Your task to perform on an android device: turn on bluetooth scan Image 0: 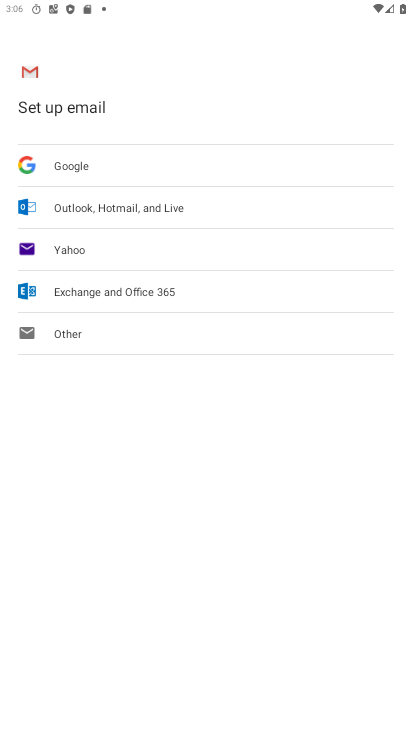
Step 0: press back button
Your task to perform on an android device: turn on bluetooth scan Image 1: 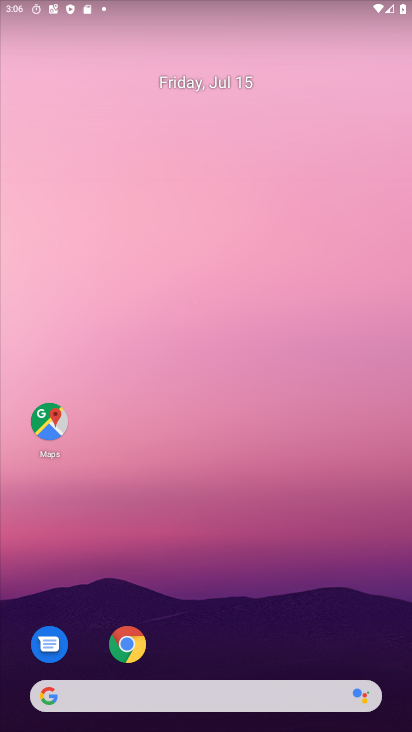
Step 1: drag from (225, 585) to (276, 9)
Your task to perform on an android device: turn on bluetooth scan Image 2: 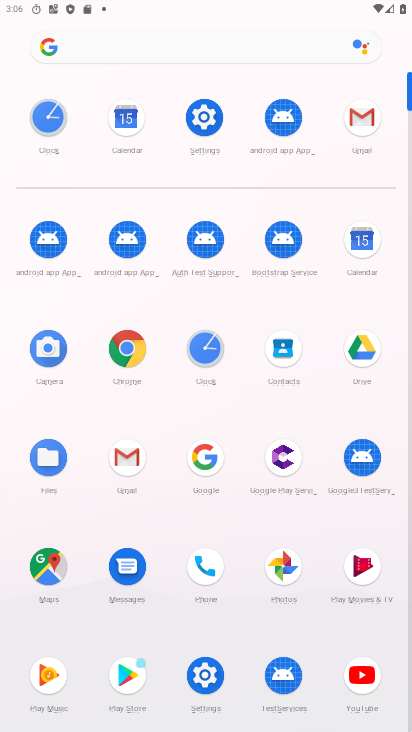
Step 2: click (206, 120)
Your task to perform on an android device: turn on bluetooth scan Image 3: 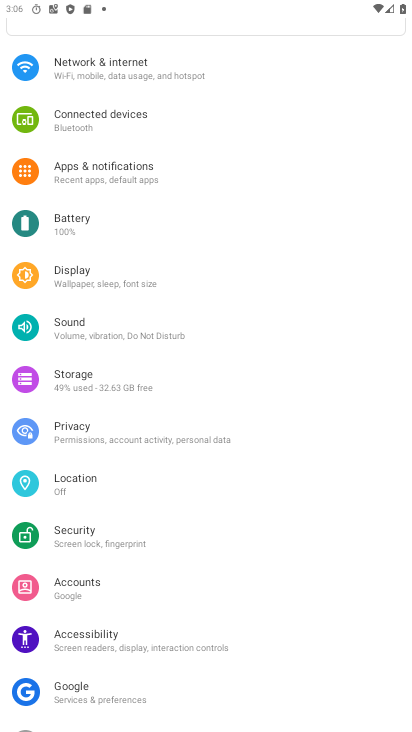
Step 3: click (92, 116)
Your task to perform on an android device: turn on bluetooth scan Image 4: 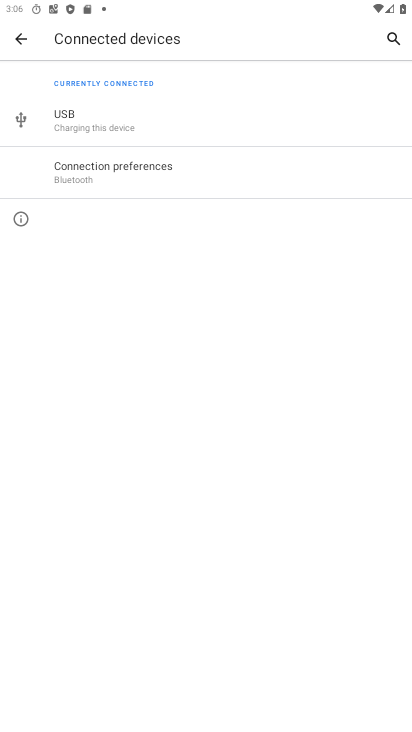
Step 4: click (114, 164)
Your task to perform on an android device: turn on bluetooth scan Image 5: 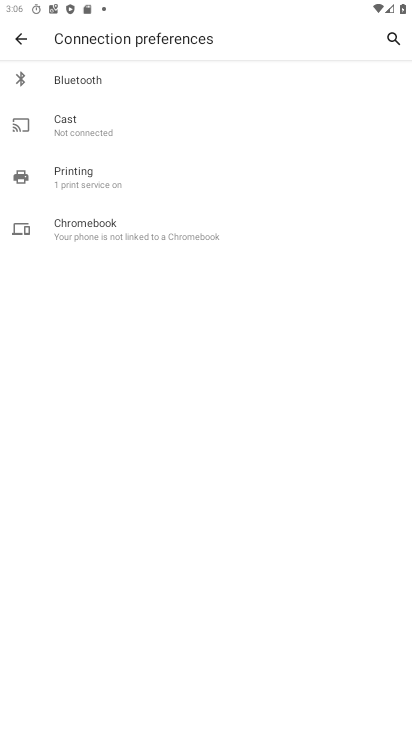
Step 5: click (82, 78)
Your task to perform on an android device: turn on bluetooth scan Image 6: 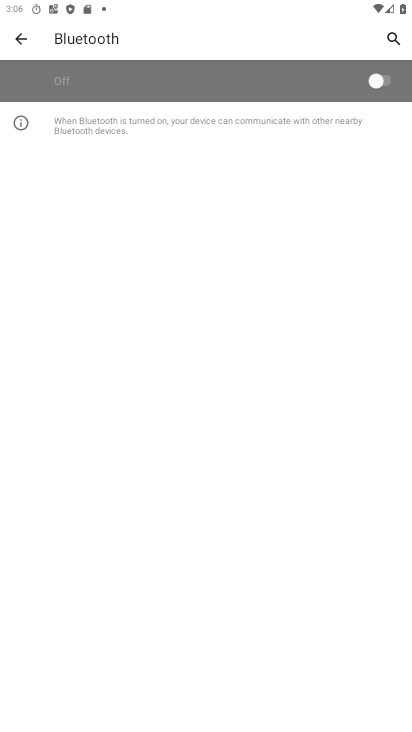
Step 6: click (384, 82)
Your task to perform on an android device: turn on bluetooth scan Image 7: 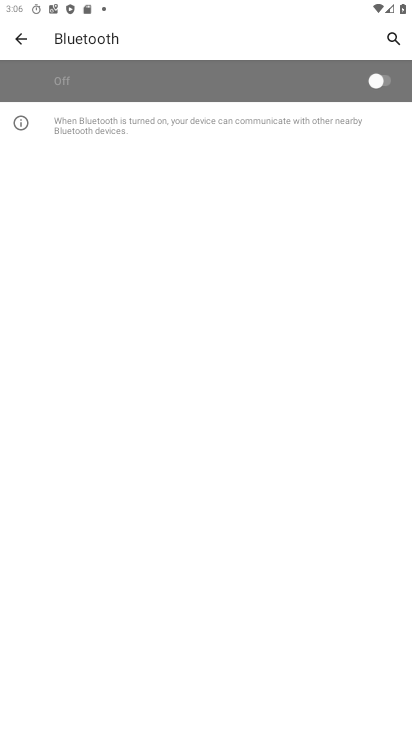
Step 7: task complete